Your task to perform on an android device: change notification settings in the gmail app Image 0: 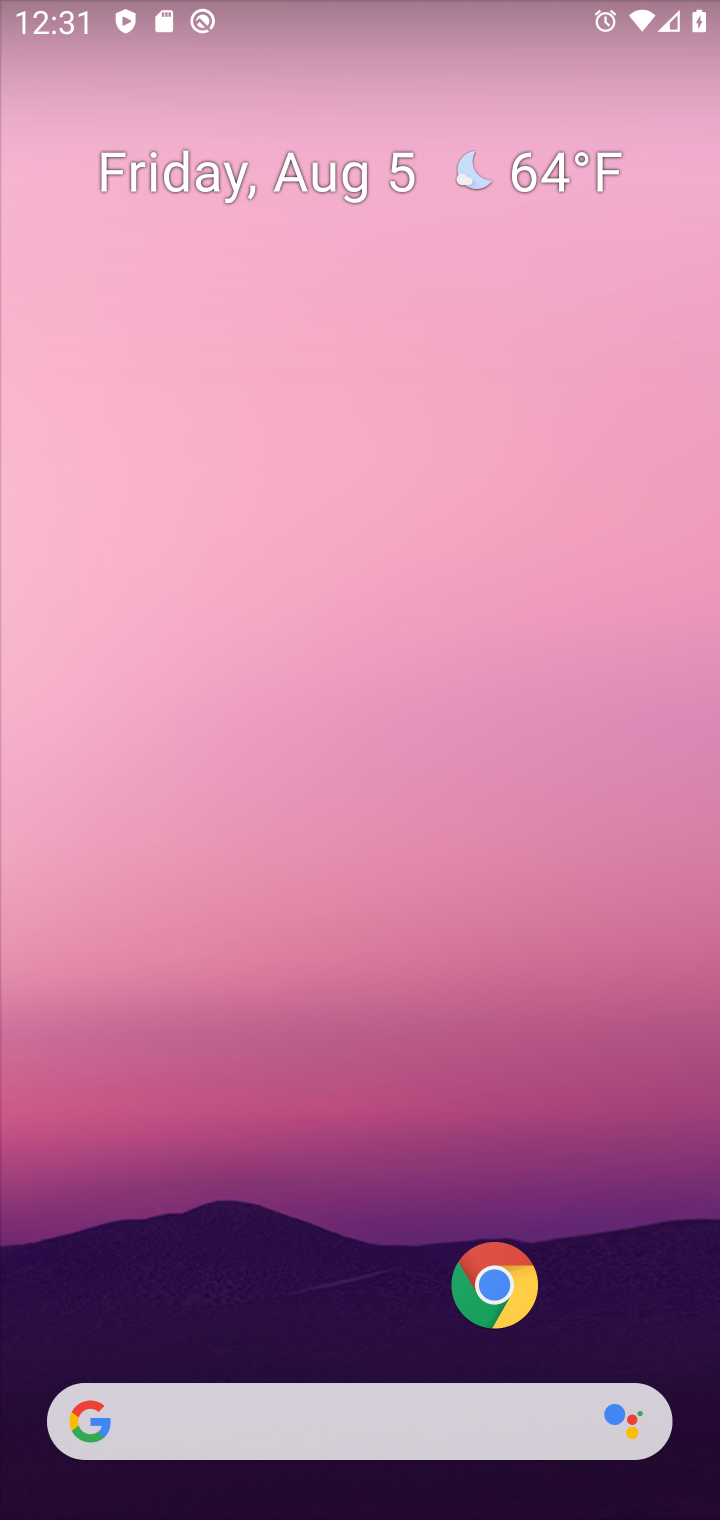
Step 0: press home button
Your task to perform on an android device: change notification settings in the gmail app Image 1: 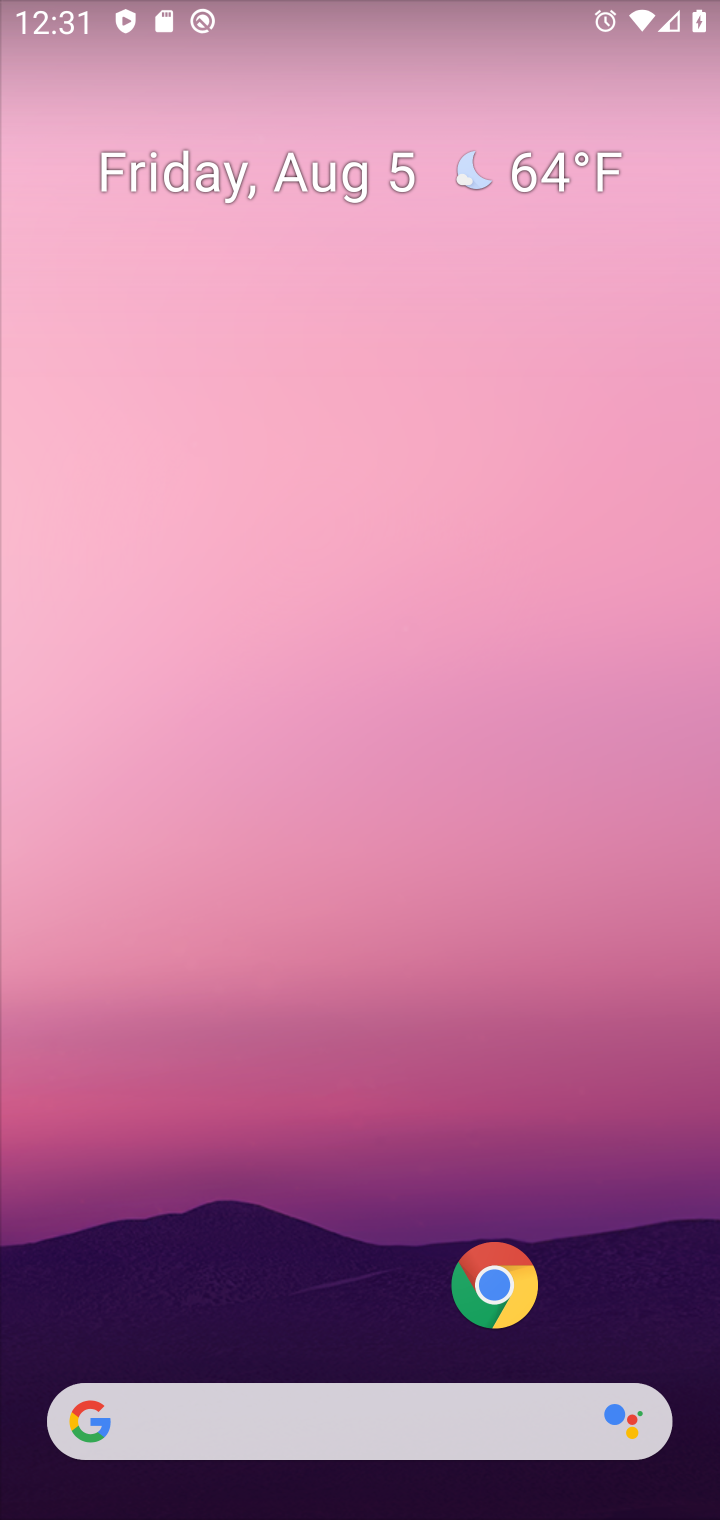
Step 1: drag from (196, 823) to (49, 77)
Your task to perform on an android device: change notification settings in the gmail app Image 2: 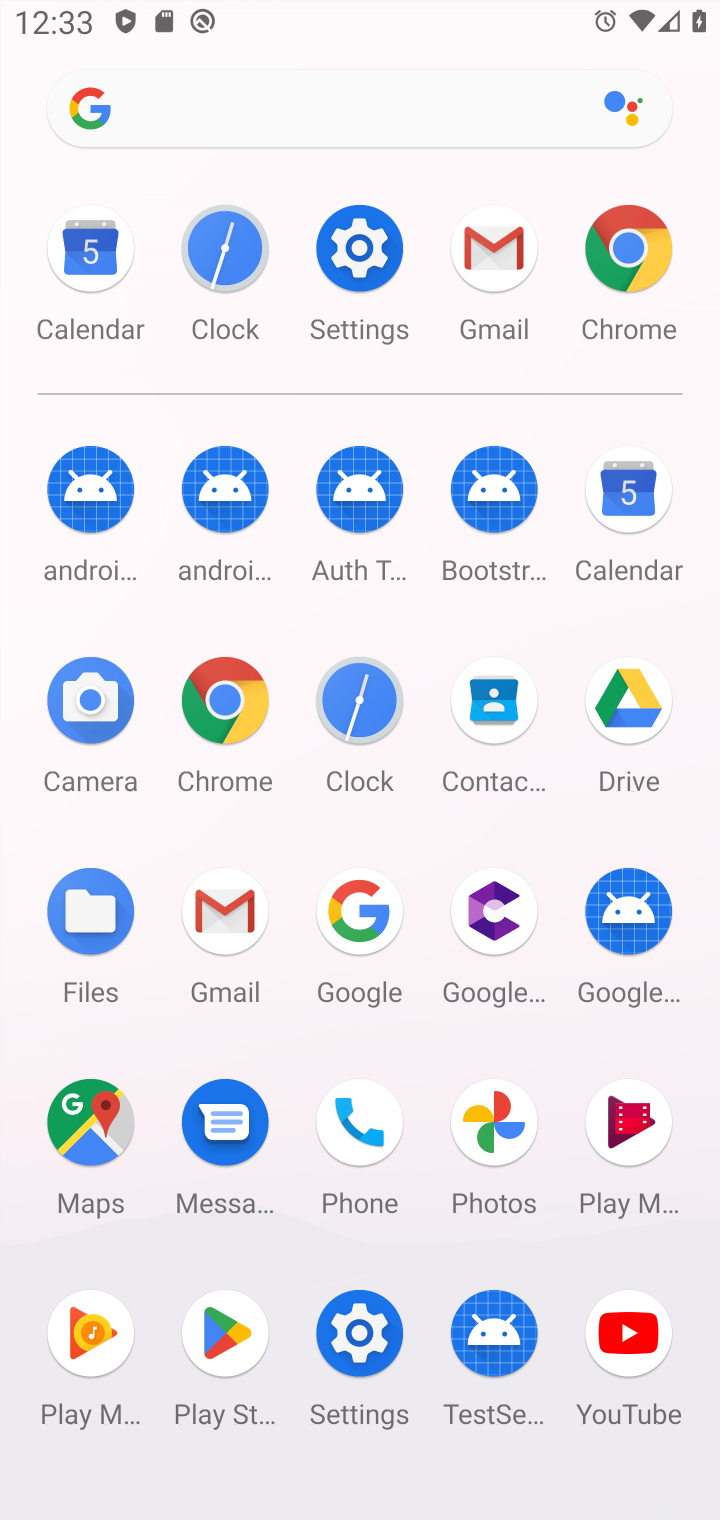
Step 2: click (376, 1365)
Your task to perform on an android device: change notification settings in the gmail app Image 3: 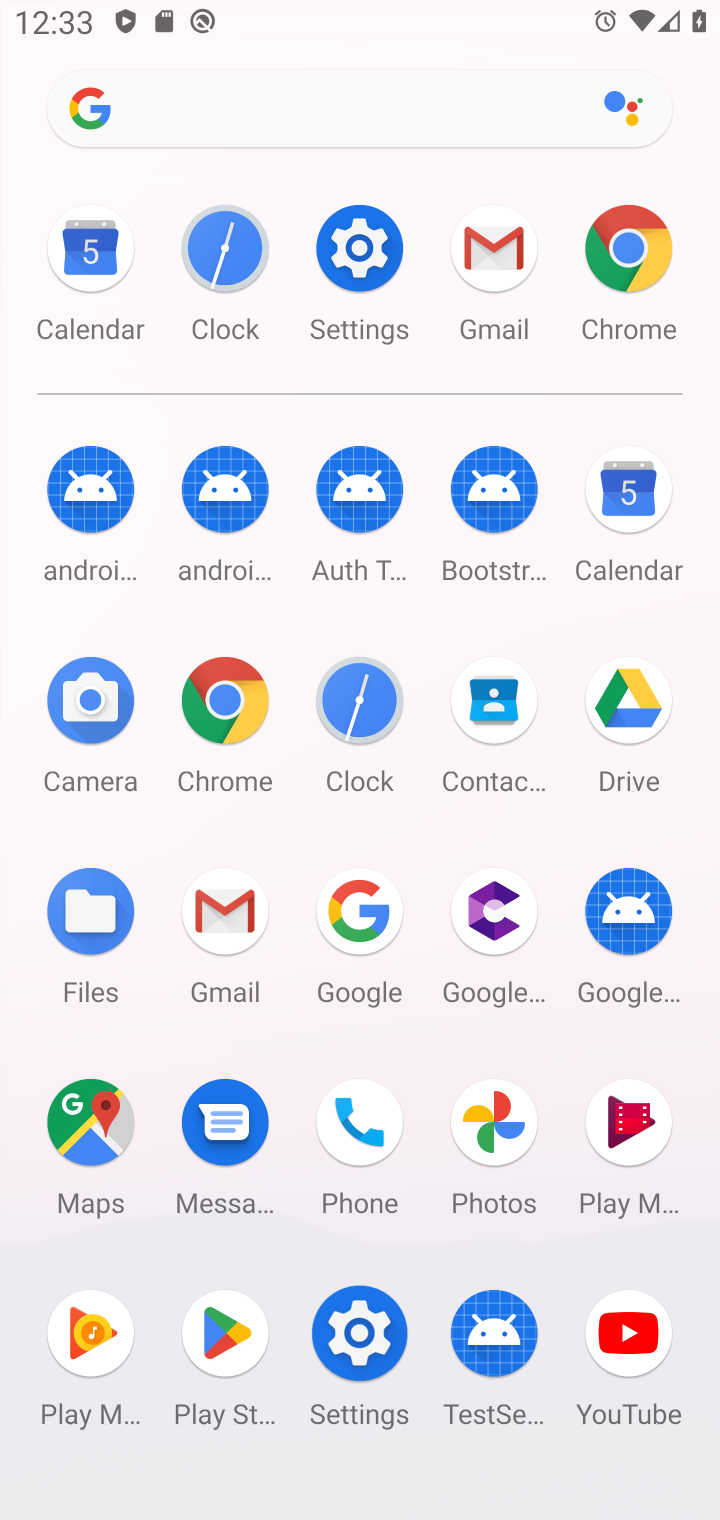
Step 3: press home button
Your task to perform on an android device: change notification settings in the gmail app Image 4: 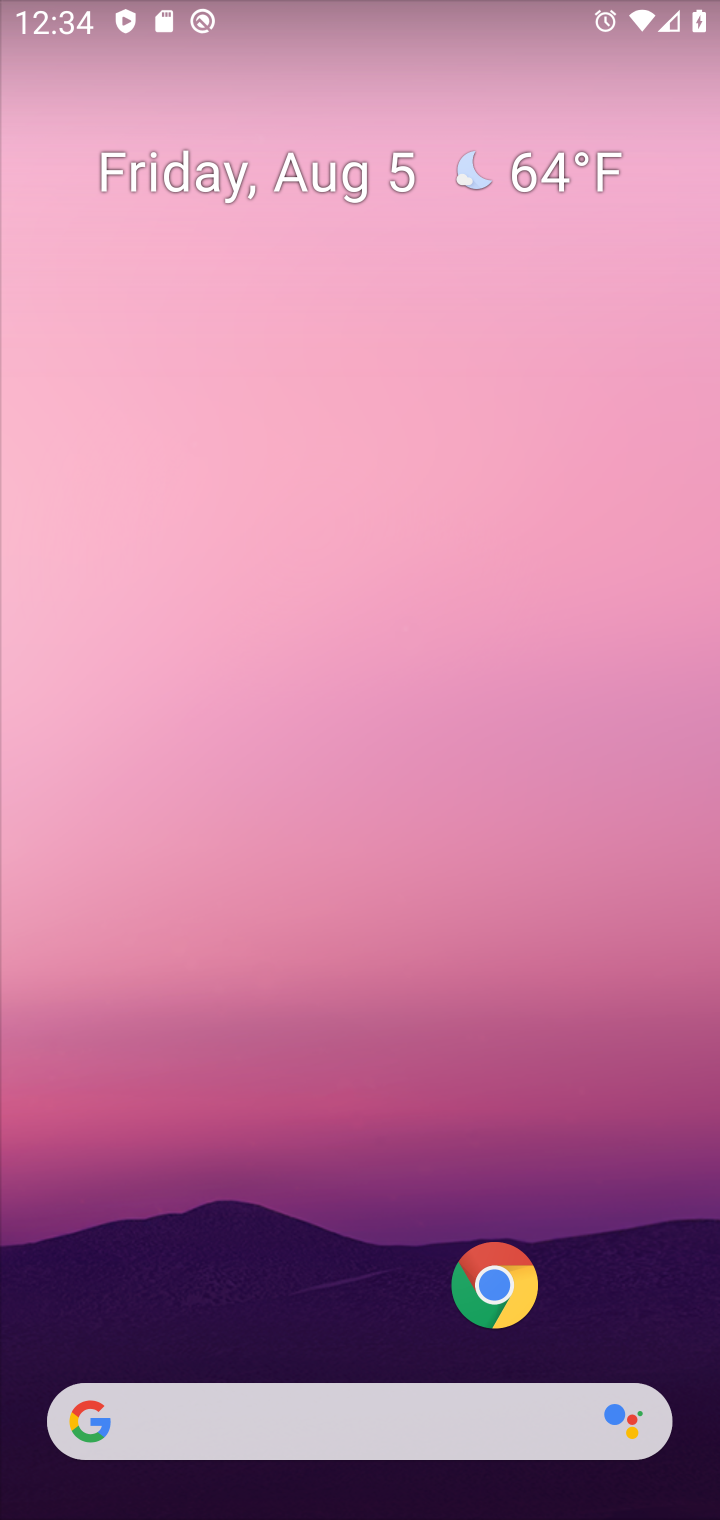
Step 4: drag from (243, 1244) to (169, 174)
Your task to perform on an android device: change notification settings in the gmail app Image 5: 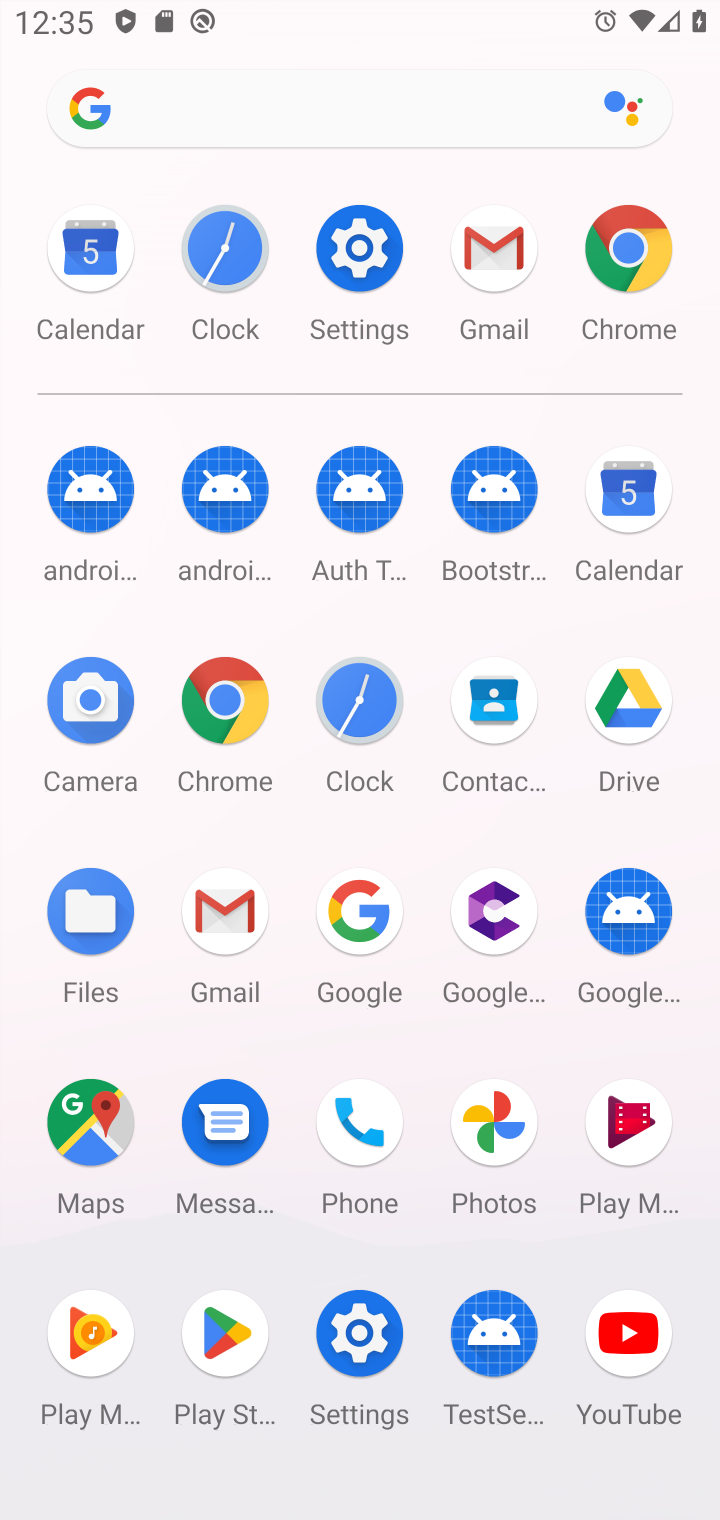
Step 5: click (212, 969)
Your task to perform on an android device: change notification settings in the gmail app Image 6: 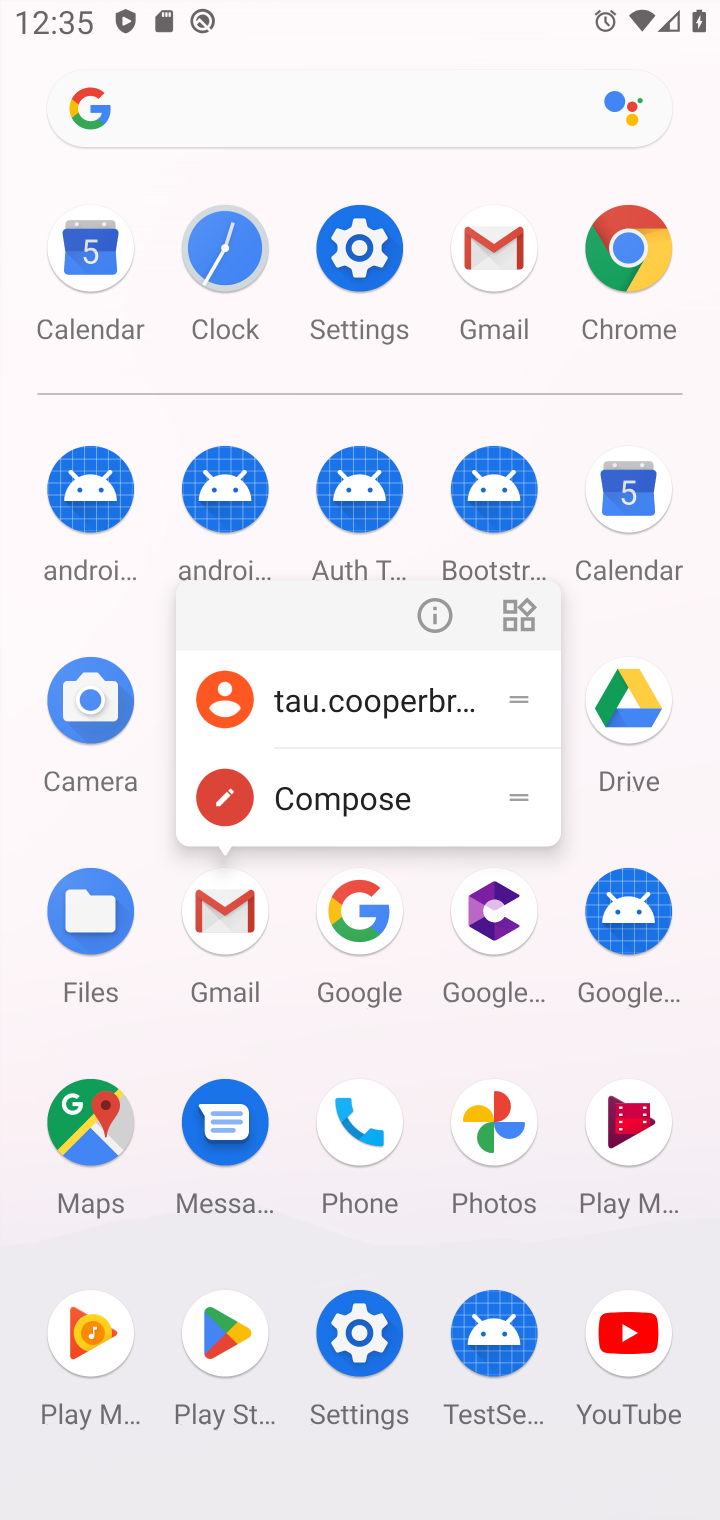
Step 6: click (427, 630)
Your task to perform on an android device: change notification settings in the gmail app Image 7: 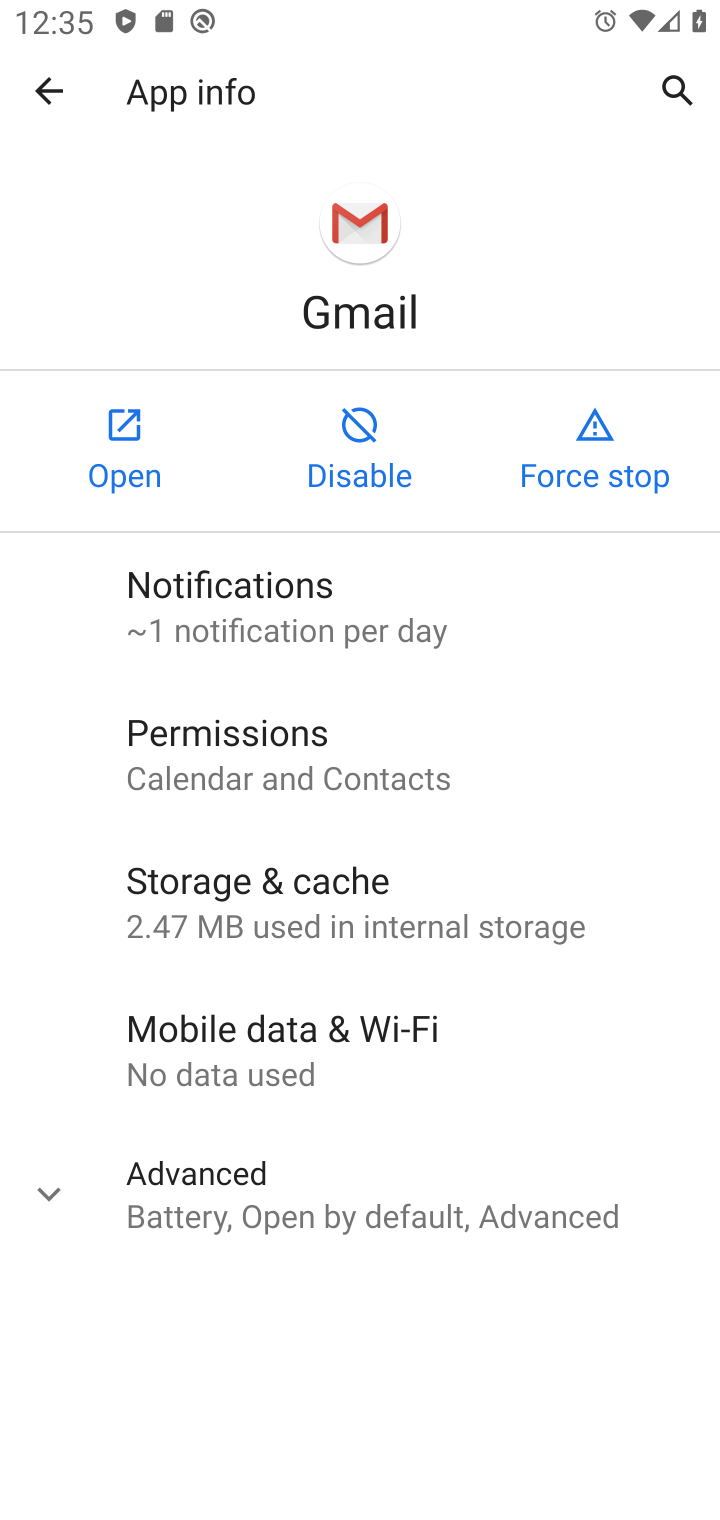
Step 7: click (293, 518)
Your task to perform on an android device: change notification settings in the gmail app Image 8: 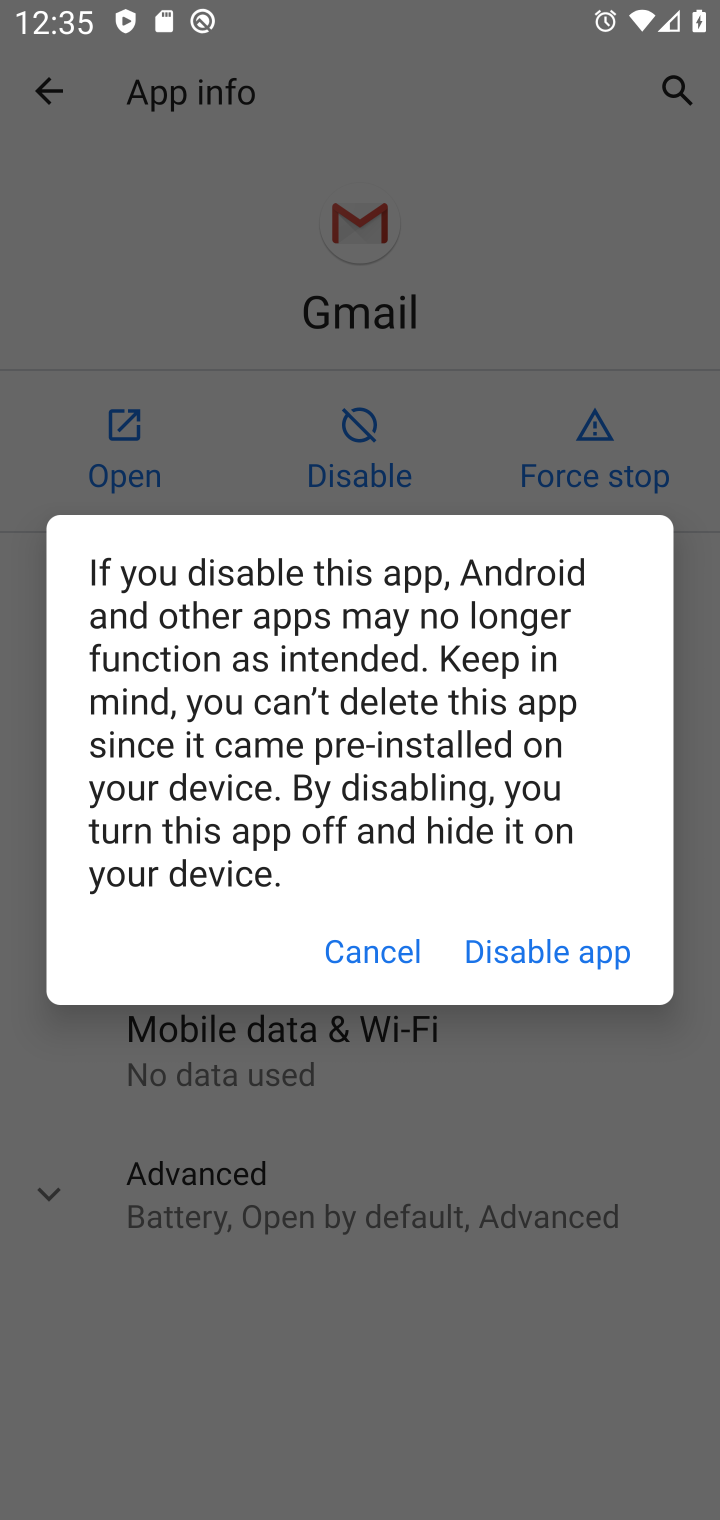
Step 8: click (394, 932)
Your task to perform on an android device: change notification settings in the gmail app Image 9: 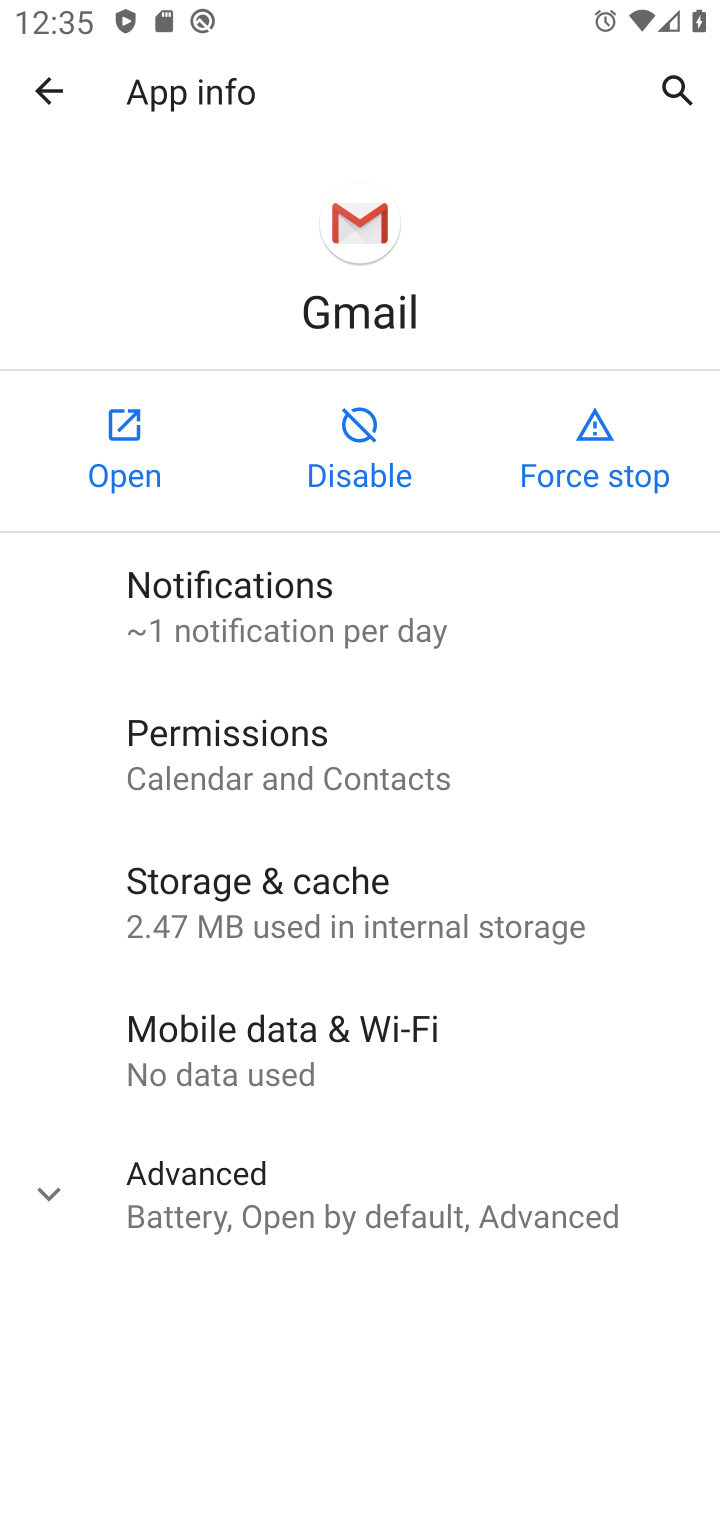
Step 9: click (234, 602)
Your task to perform on an android device: change notification settings in the gmail app Image 10: 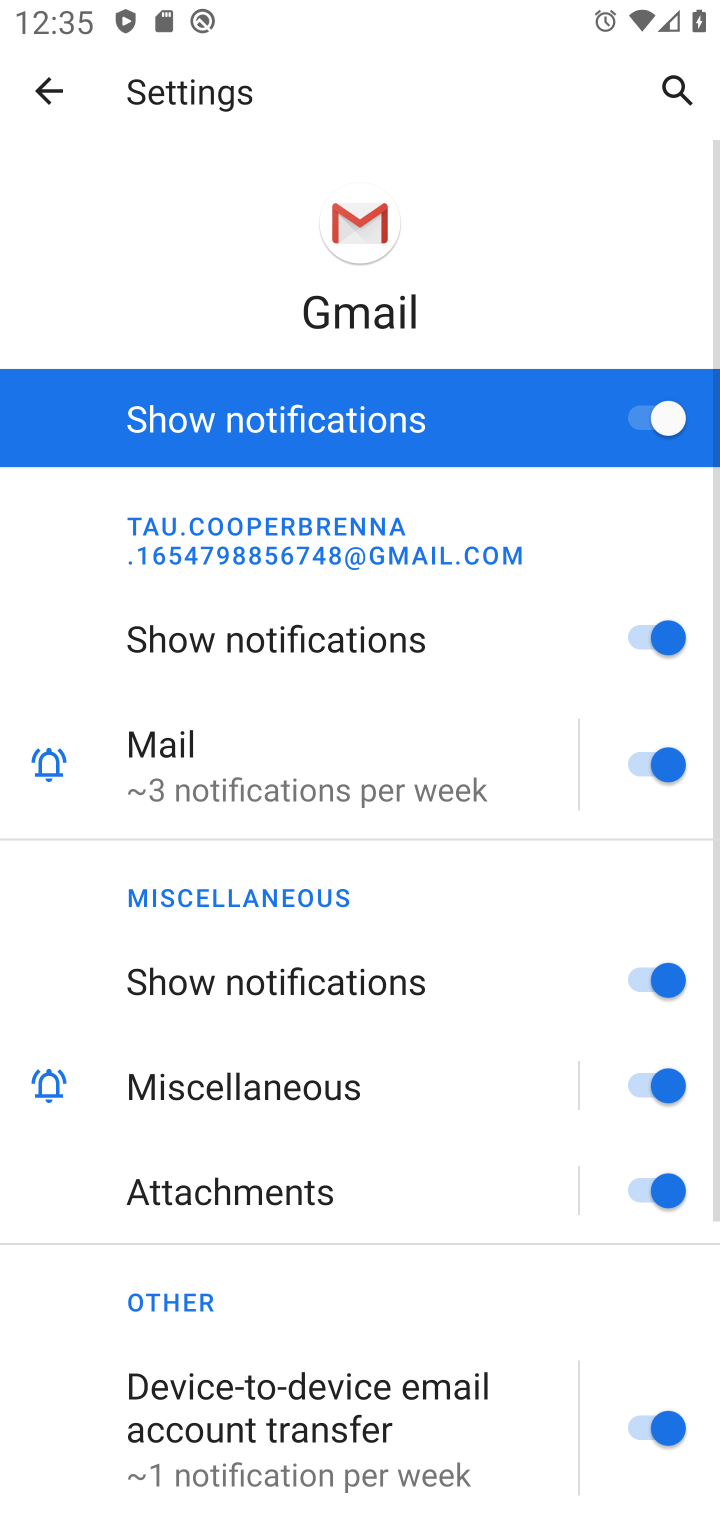
Step 10: click (267, 428)
Your task to perform on an android device: change notification settings in the gmail app Image 11: 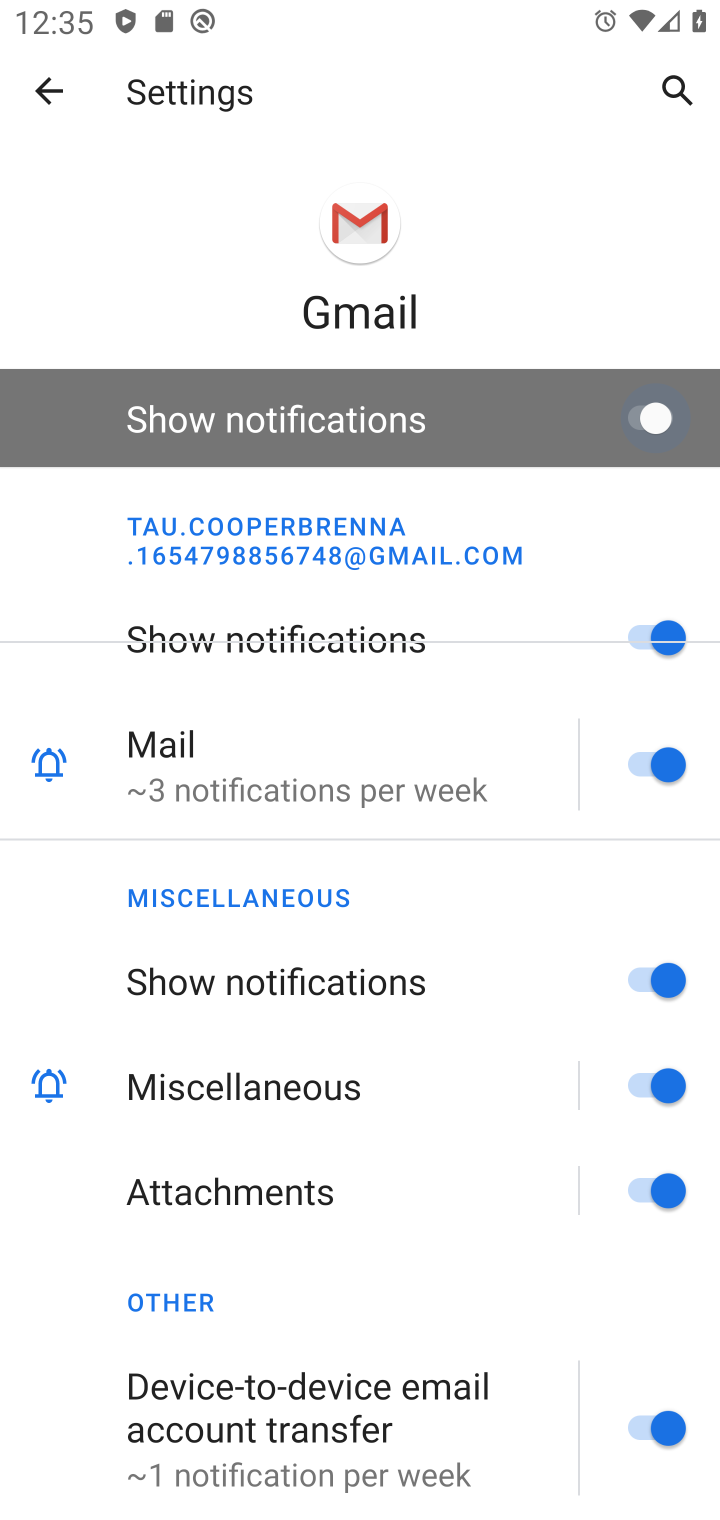
Step 11: task complete